Your task to perform on an android device: set the stopwatch Image 0: 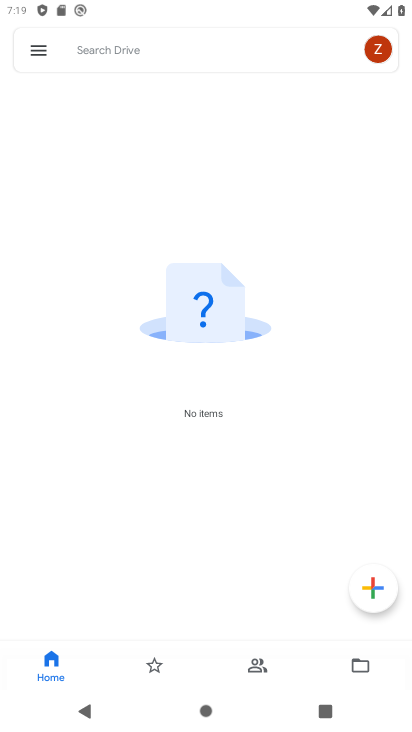
Step 0: press home button
Your task to perform on an android device: set the stopwatch Image 1: 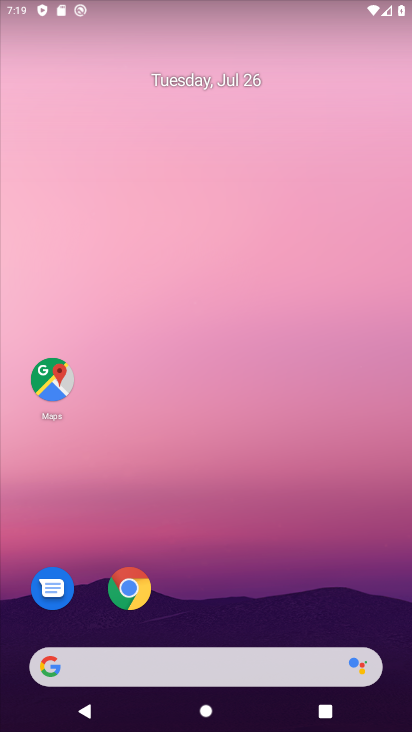
Step 1: drag from (296, 540) to (284, 225)
Your task to perform on an android device: set the stopwatch Image 2: 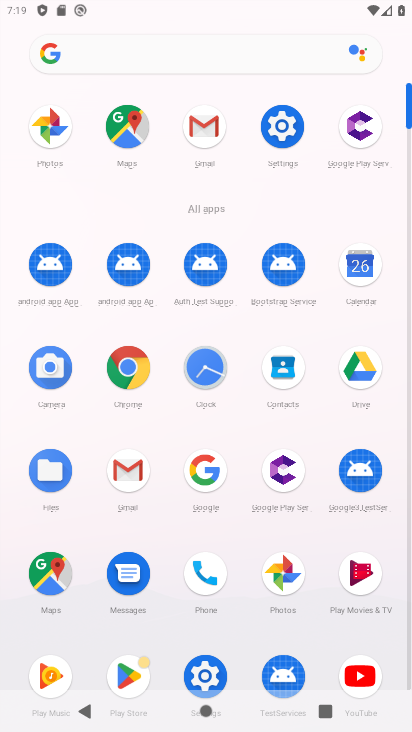
Step 2: click (212, 367)
Your task to perform on an android device: set the stopwatch Image 3: 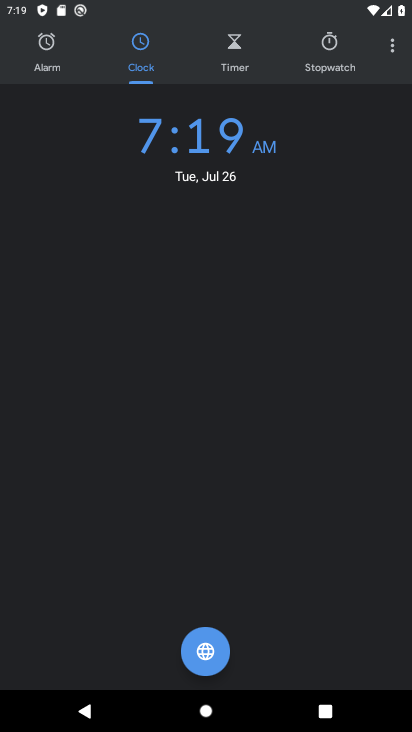
Step 3: click (327, 46)
Your task to perform on an android device: set the stopwatch Image 4: 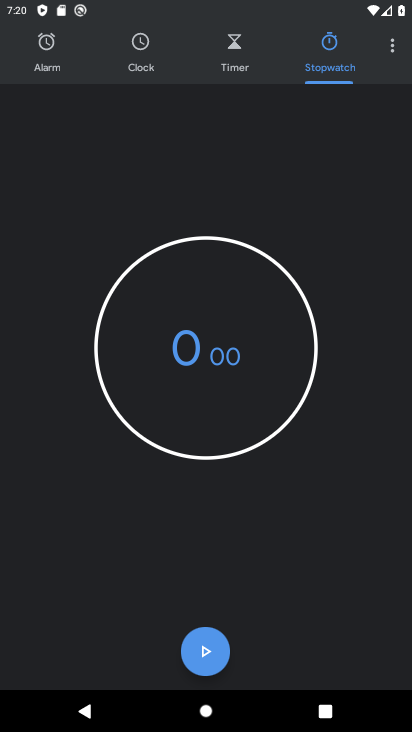
Step 4: task complete